Your task to perform on an android device: set an alarm Image 0: 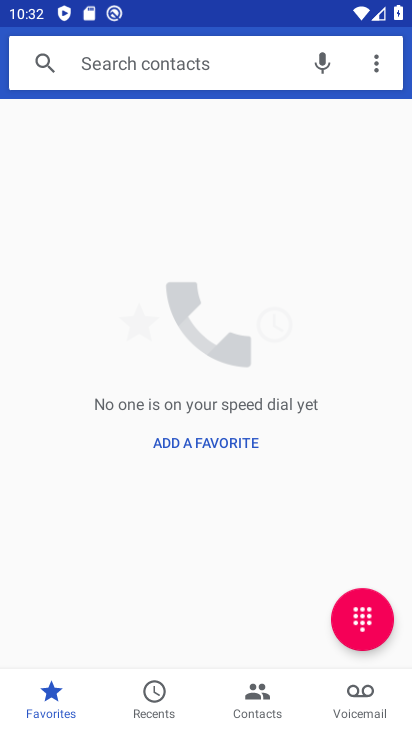
Step 0: press home button
Your task to perform on an android device: set an alarm Image 1: 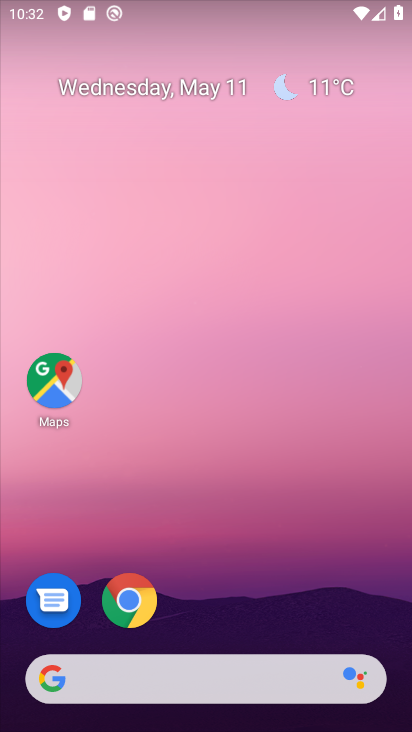
Step 1: drag from (211, 635) to (194, 38)
Your task to perform on an android device: set an alarm Image 2: 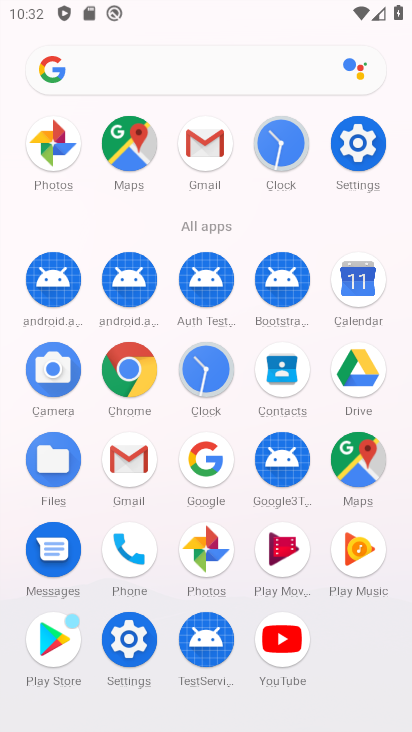
Step 2: click (188, 375)
Your task to perform on an android device: set an alarm Image 3: 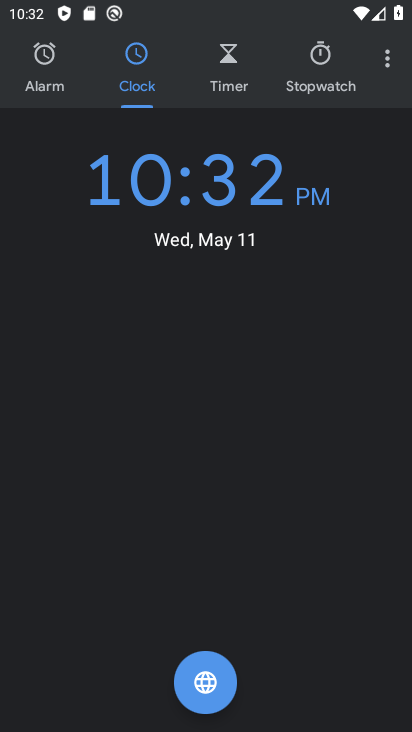
Step 3: click (45, 69)
Your task to perform on an android device: set an alarm Image 4: 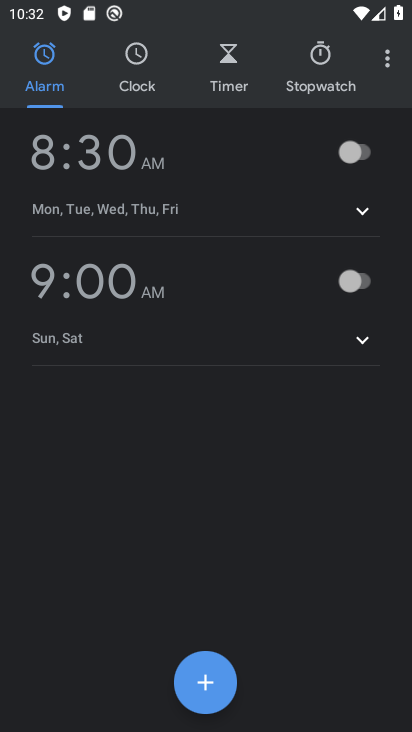
Step 4: click (204, 678)
Your task to perform on an android device: set an alarm Image 5: 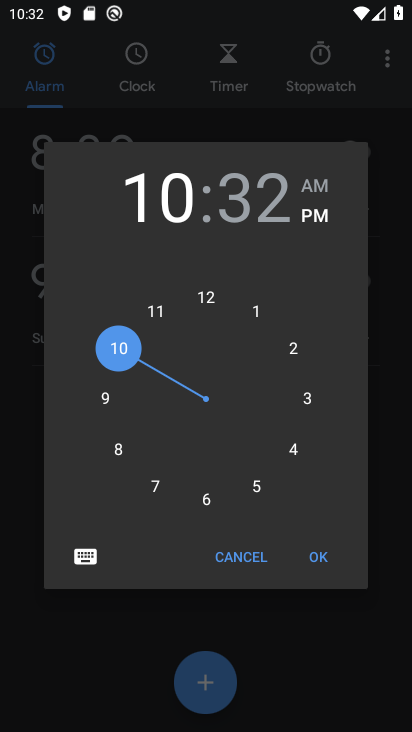
Step 5: click (320, 558)
Your task to perform on an android device: set an alarm Image 6: 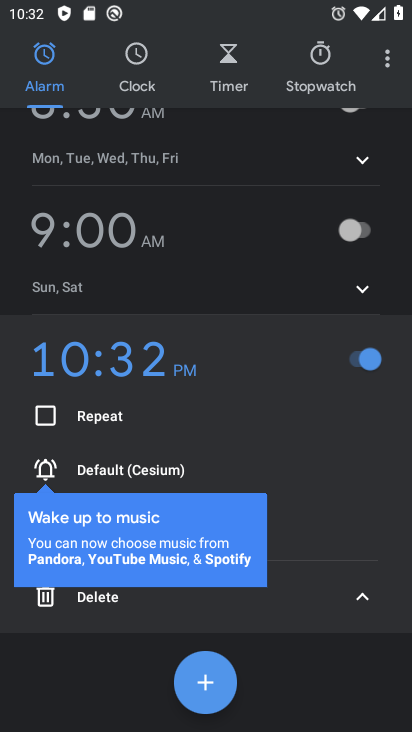
Step 6: task complete